Your task to perform on an android device: Open Google Chrome Image 0: 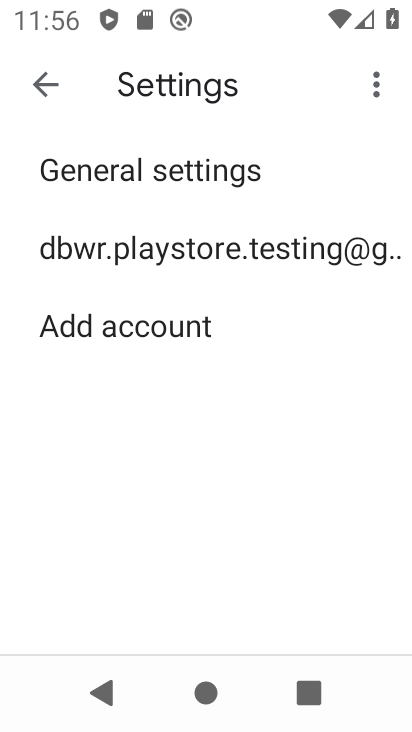
Step 0: press home button
Your task to perform on an android device: Open Google Chrome Image 1: 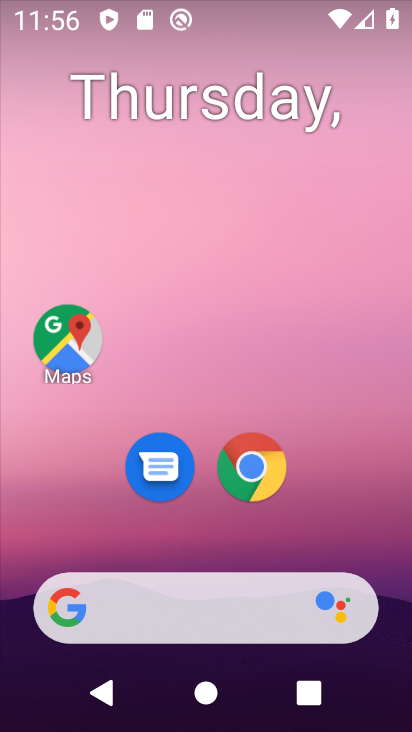
Step 1: click (248, 463)
Your task to perform on an android device: Open Google Chrome Image 2: 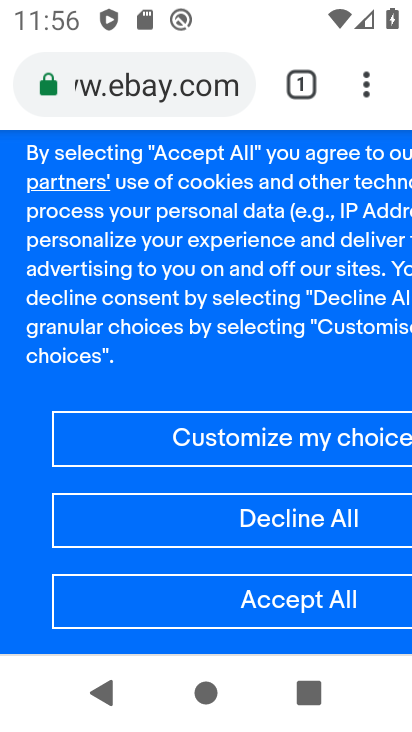
Step 2: click (369, 93)
Your task to perform on an android device: Open Google Chrome Image 3: 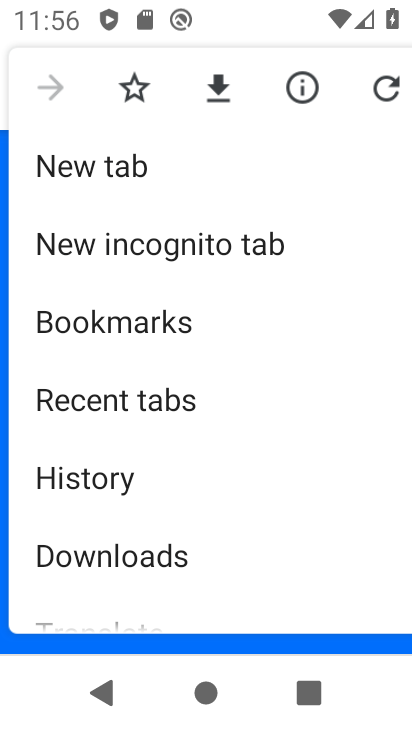
Step 3: task complete